Your task to perform on an android device: Go to Google Image 0: 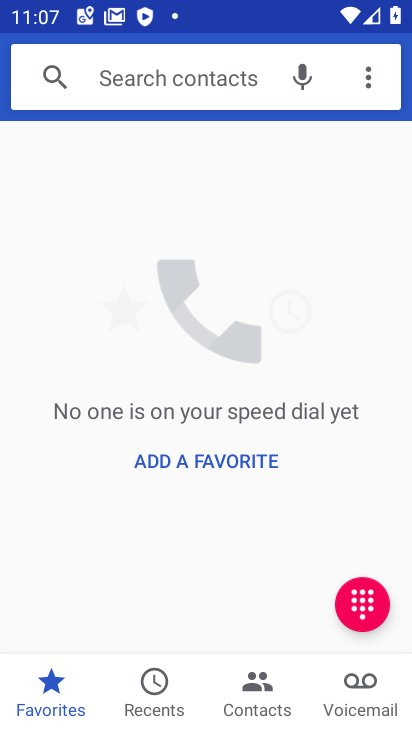
Step 0: press home button
Your task to perform on an android device: Go to Google Image 1: 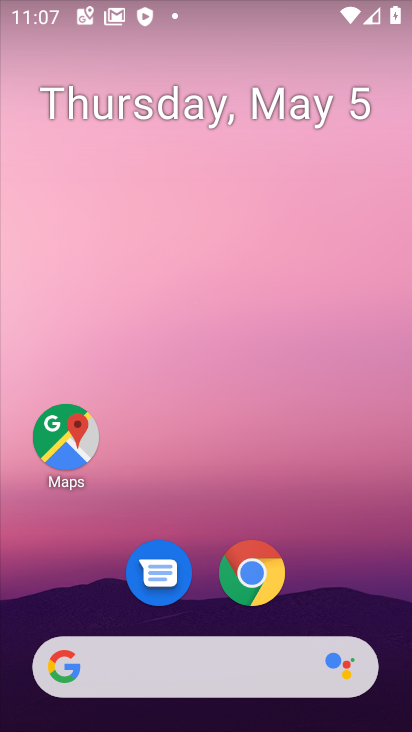
Step 1: drag from (326, 575) to (305, 243)
Your task to perform on an android device: Go to Google Image 2: 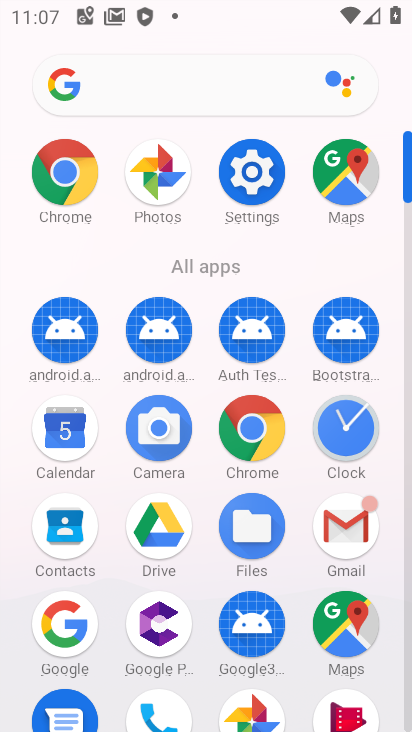
Step 2: click (62, 615)
Your task to perform on an android device: Go to Google Image 3: 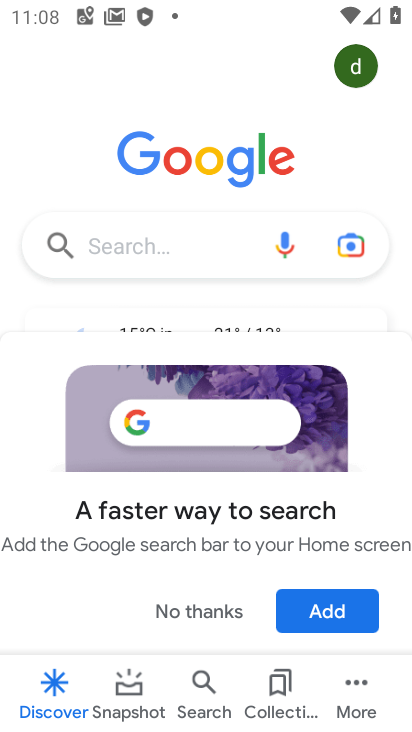
Step 3: task complete